Your task to perform on an android device: change the clock display to show seconds Image 0: 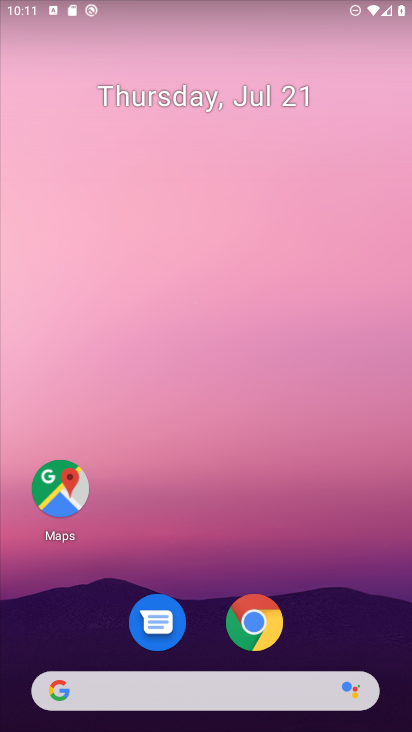
Step 0: drag from (344, 722) to (283, 3)
Your task to perform on an android device: change the clock display to show seconds Image 1: 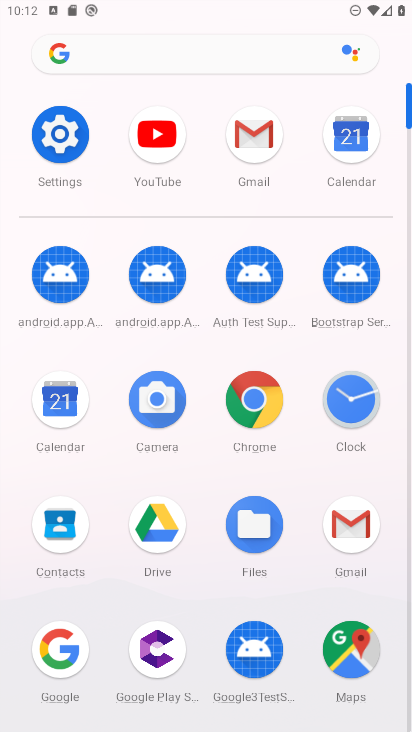
Step 1: click (335, 409)
Your task to perform on an android device: change the clock display to show seconds Image 2: 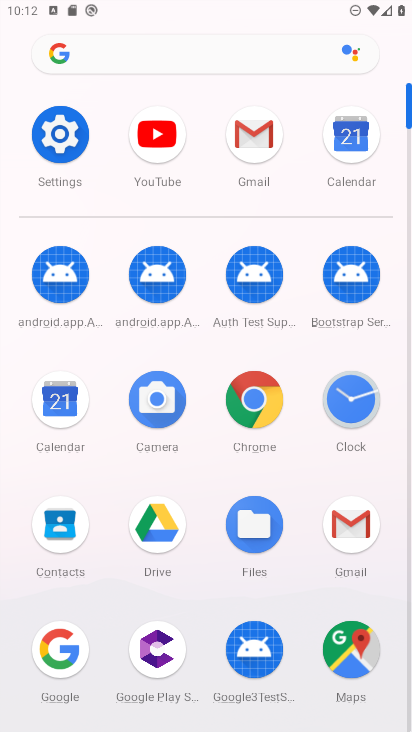
Step 2: click (335, 409)
Your task to perform on an android device: change the clock display to show seconds Image 3: 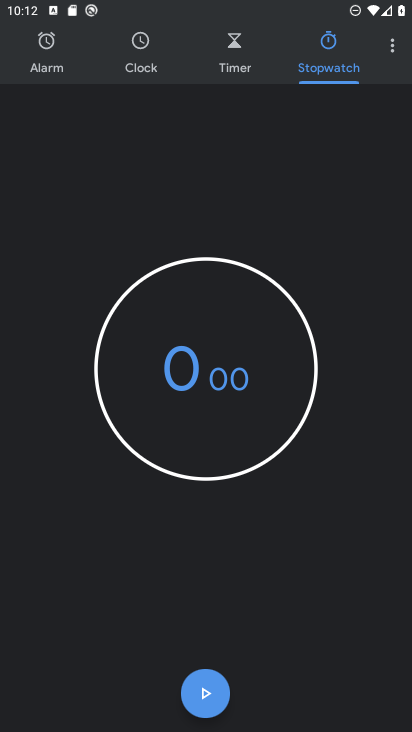
Step 3: click (390, 37)
Your task to perform on an android device: change the clock display to show seconds Image 4: 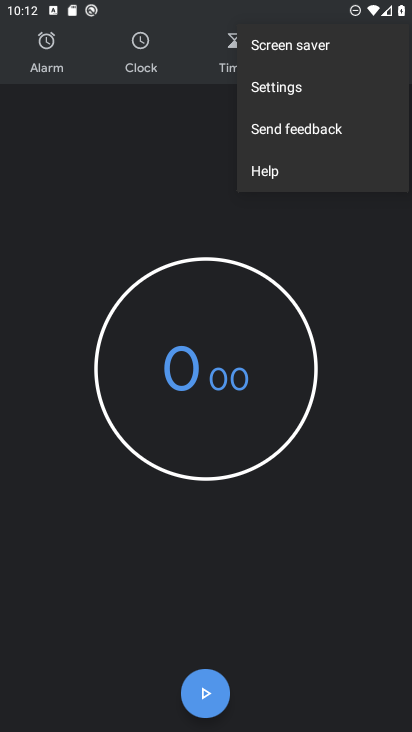
Step 4: click (295, 90)
Your task to perform on an android device: change the clock display to show seconds Image 5: 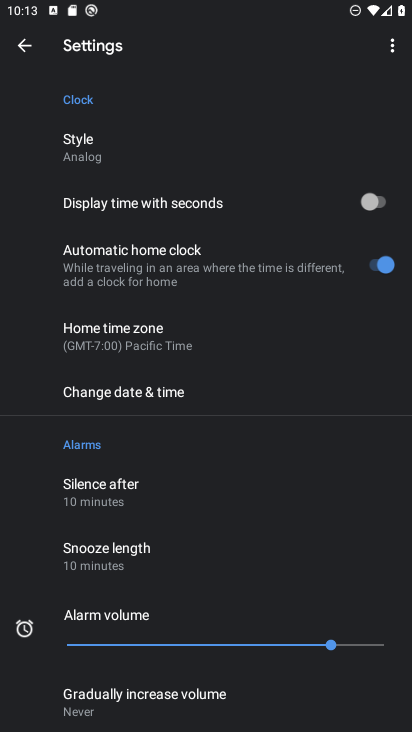
Step 5: click (373, 205)
Your task to perform on an android device: change the clock display to show seconds Image 6: 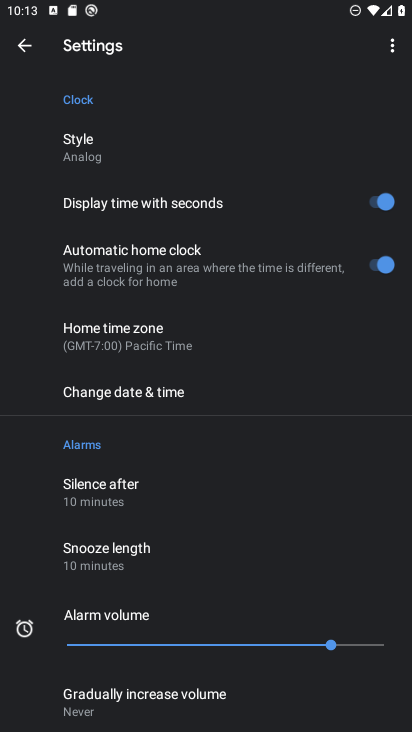
Step 6: task complete